Your task to perform on an android device: Search for a new highlighter Image 0: 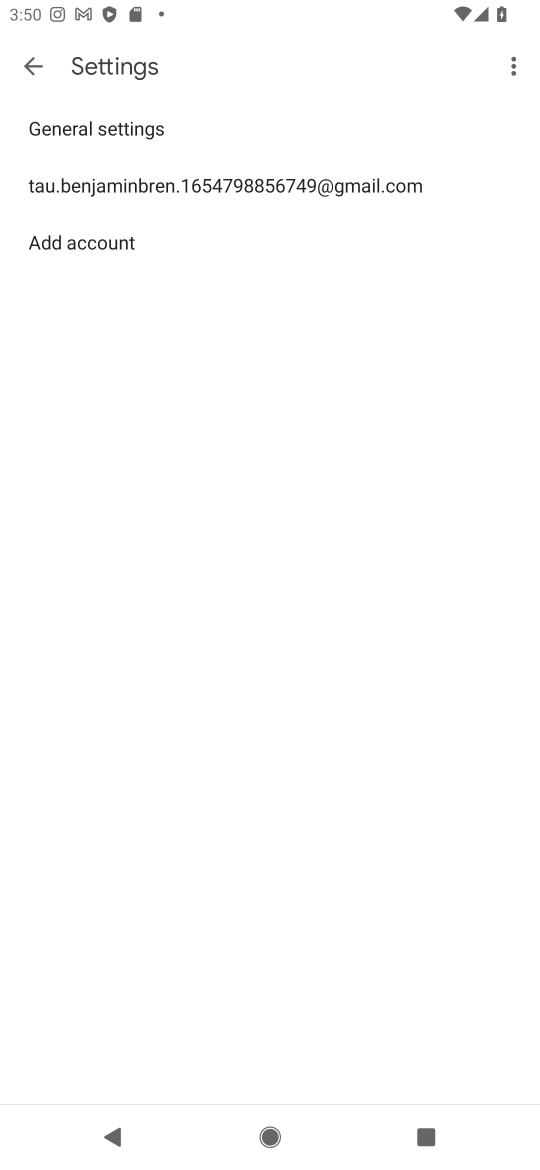
Step 0: press home button
Your task to perform on an android device: Search for a new highlighter Image 1: 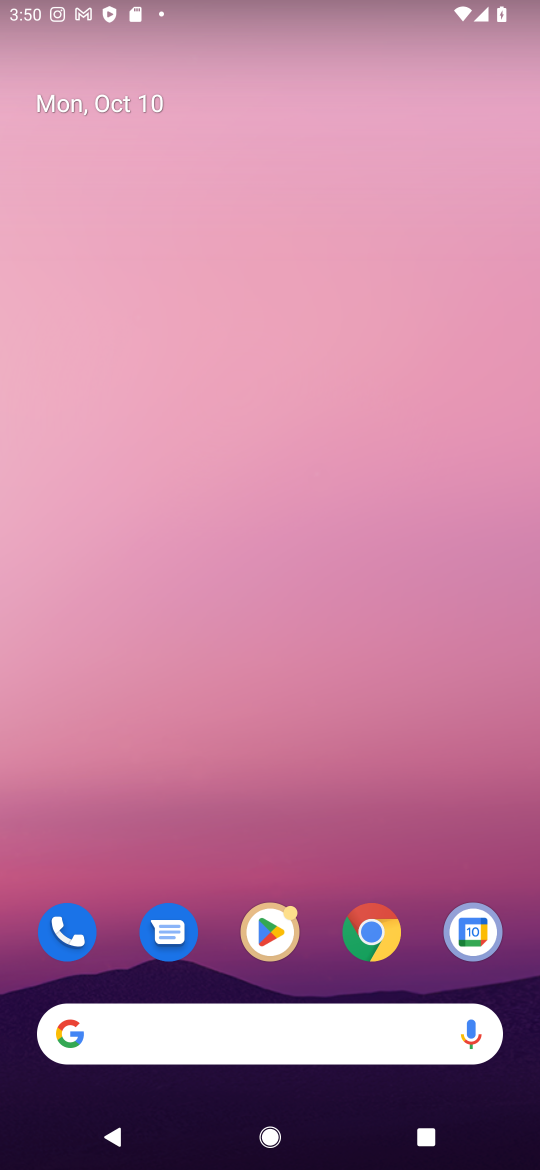
Step 1: click (266, 1015)
Your task to perform on an android device: Search for a new highlighter Image 2: 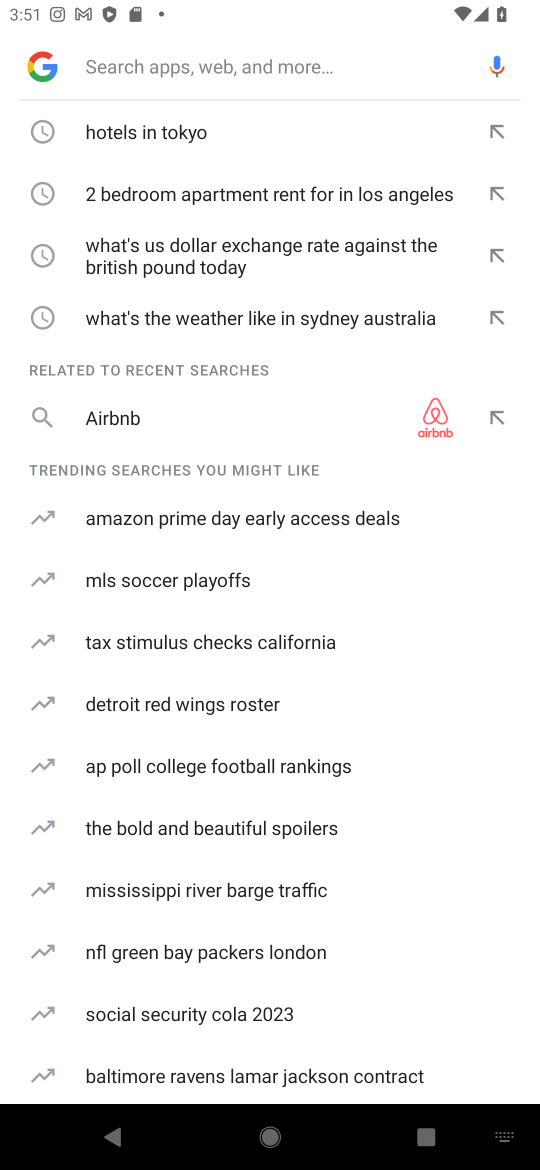
Step 2: press enter
Your task to perform on an android device: Search for a new highlighter Image 3: 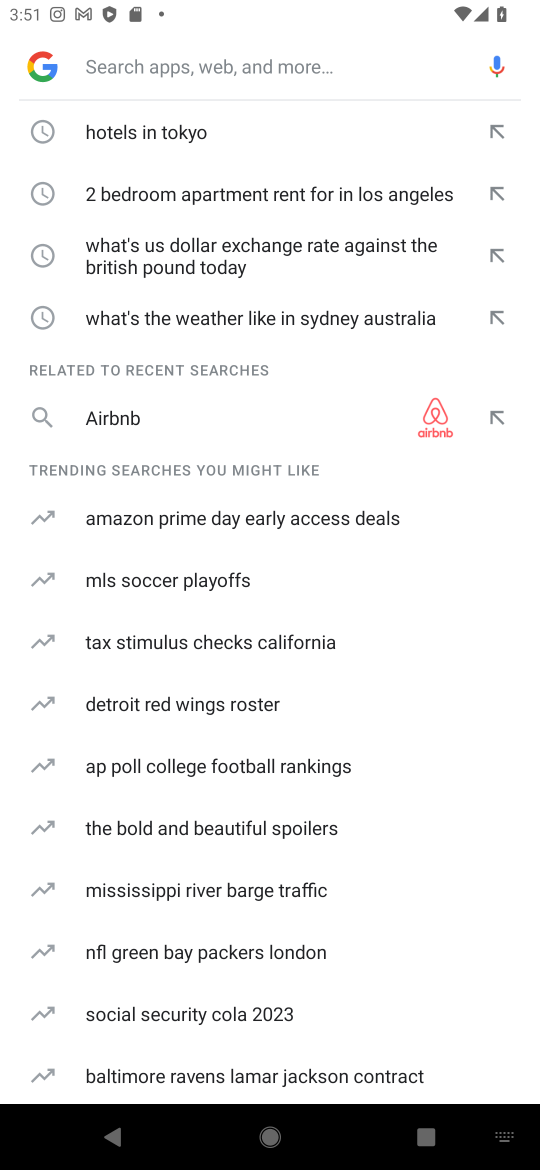
Step 3: type " new highlighter"
Your task to perform on an android device: Search for a new highlighter Image 4: 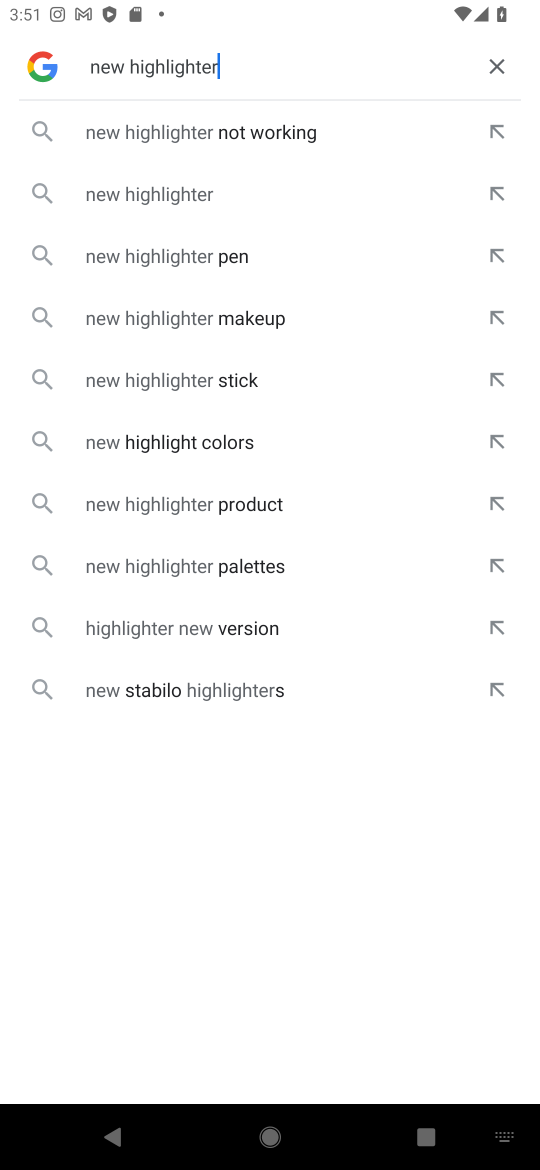
Step 4: press enter
Your task to perform on an android device: Search for a new highlighter Image 5: 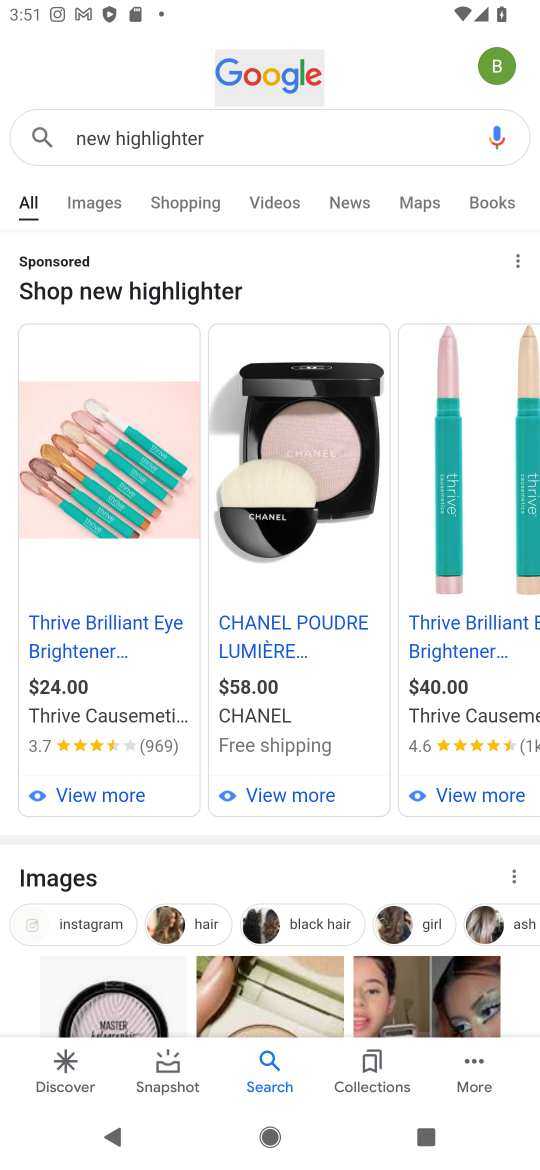
Step 5: task complete